Your task to perform on an android device: toggle notification dots Image 0: 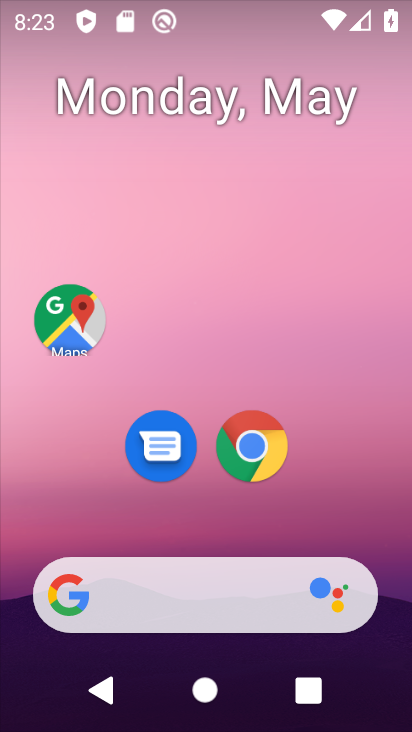
Step 0: press home button
Your task to perform on an android device: toggle notification dots Image 1: 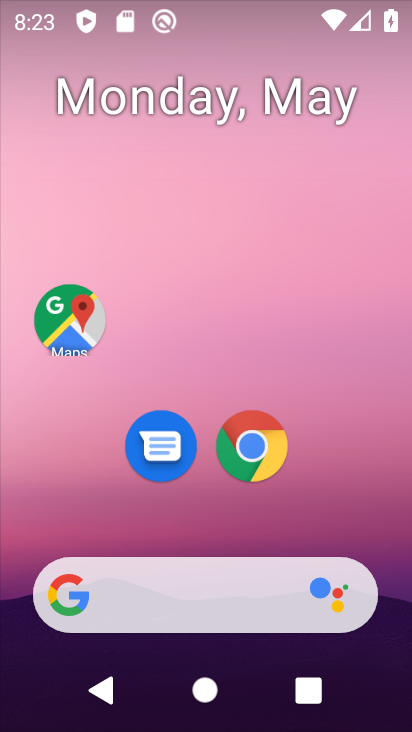
Step 1: drag from (209, 522) to (218, 0)
Your task to perform on an android device: toggle notification dots Image 2: 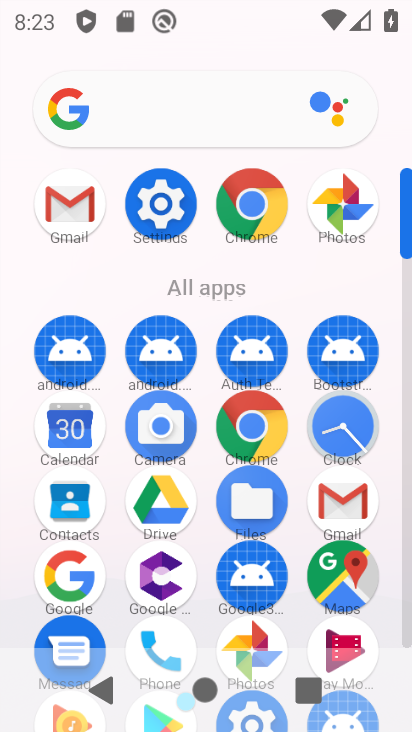
Step 2: click (158, 200)
Your task to perform on an android device: toggle notification dots Image 3: 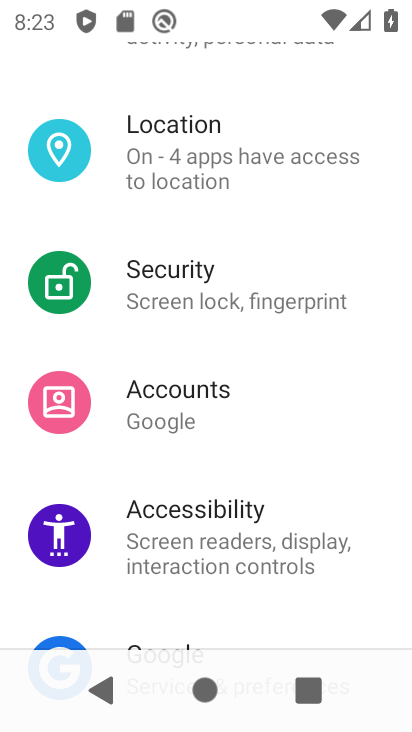
Step 3: drag from (242, 94) to (265, 637)
Your task to perform on an android device: toggle notification dots Image 4: 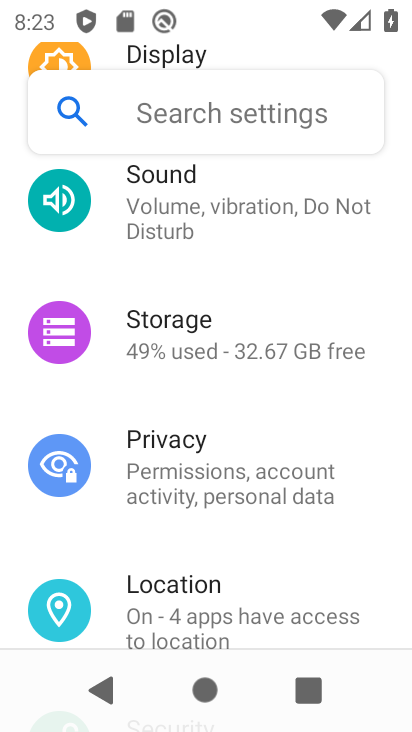
Step 4: drag from (221, 194) to (221, 677)
Your task to perform on an android device: toggle notification dots Image 5: 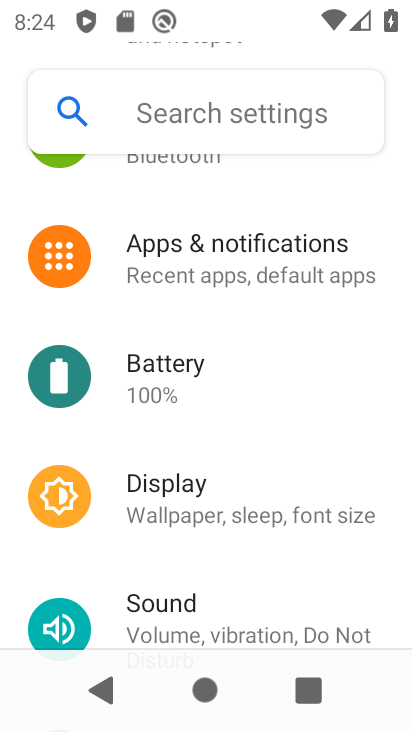
Step 5: click (251, 257)
Your task to perform on an android device: toggle notification dots Image 6: 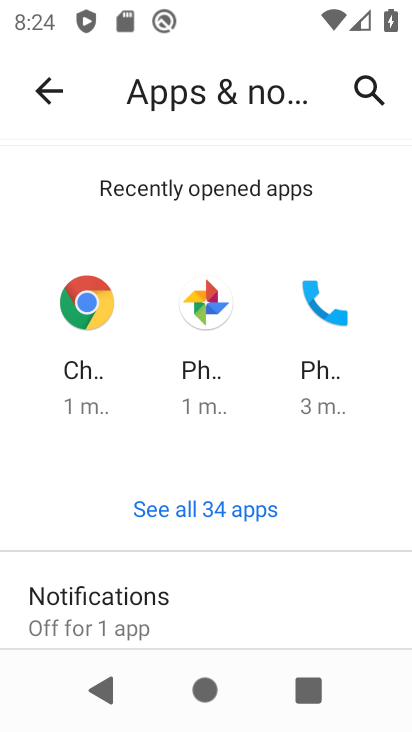
Step 6: click (170, 612)
Your task to perform on an android device: toggle notification dots Image 7: 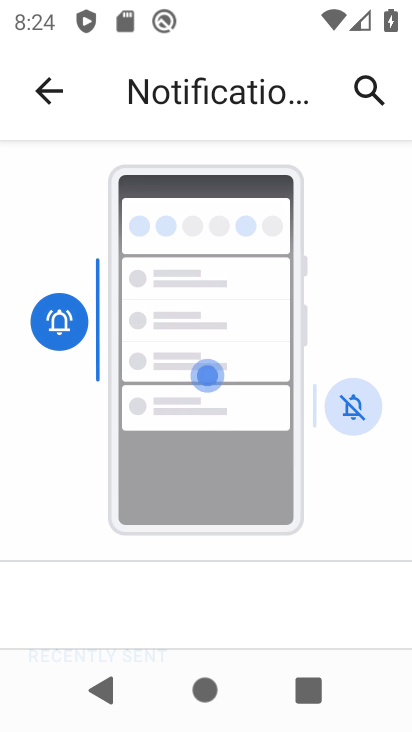
Step 7: drag from (226, 615) to (222, 117)
Your task to perform on an android device: toggle notification dots Image 8: 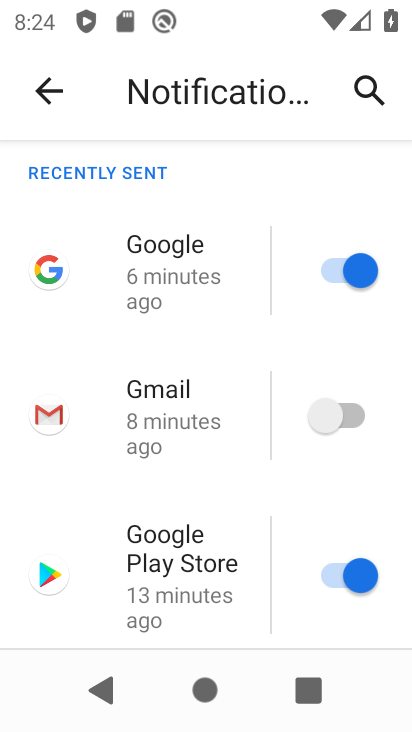
Step 8: drag from (239, 621) to (259, 194)
Your task to perform on an android device: toggle notification dots Image 9: 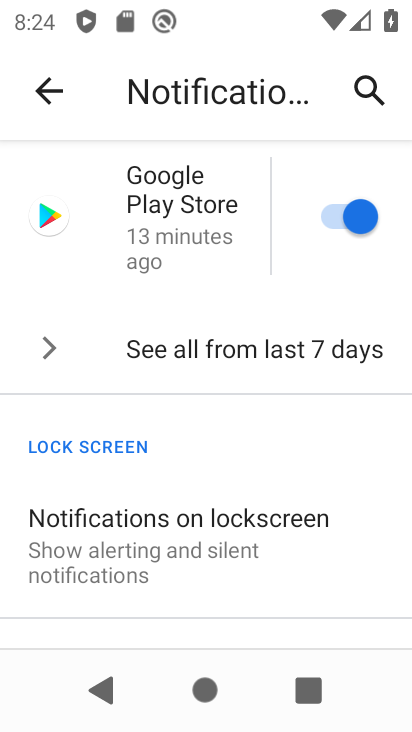
Step 9: drag from (242, 596) to (241, 200)
Your task to perform on an android device: toggle notification dots Image 10: 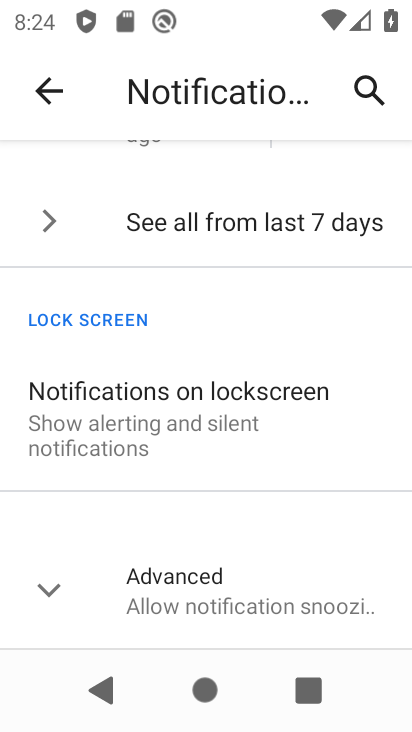
Step 10: click (50, 584)
Your task to perform on an android device: toggle notification dots Image 11: 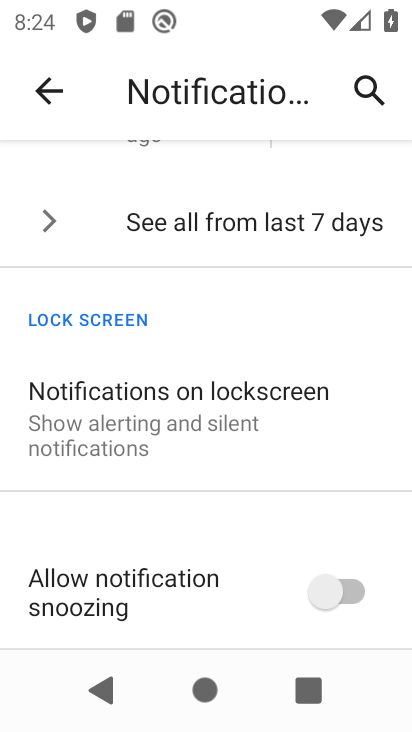
Step 11: drag from (199, 602) to (233, 183)
Your task to perform on an android device: toggle notification dots Image 12: 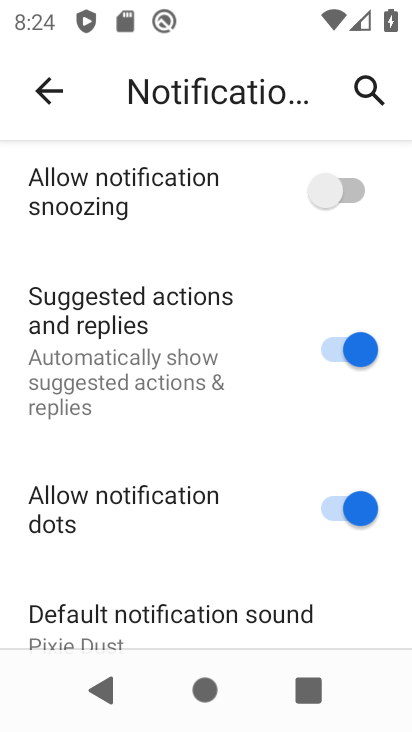
Step 12: click (334, 505)
Your task to perform on an android device: toggle notification dots Image 13: 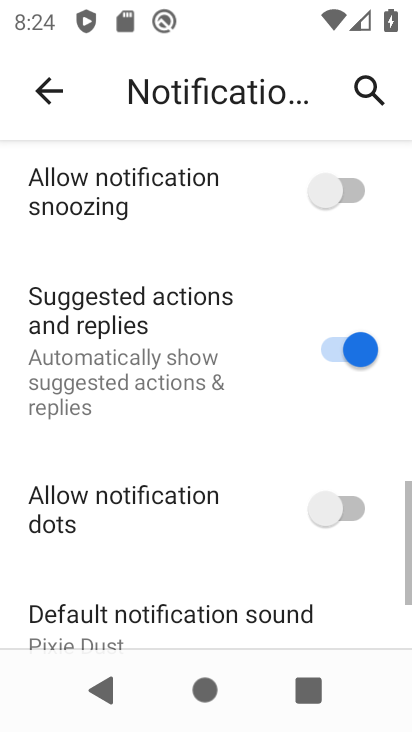
Step 13: task complete